Your task to perform on an android device: Open ESPN.com Image 0: 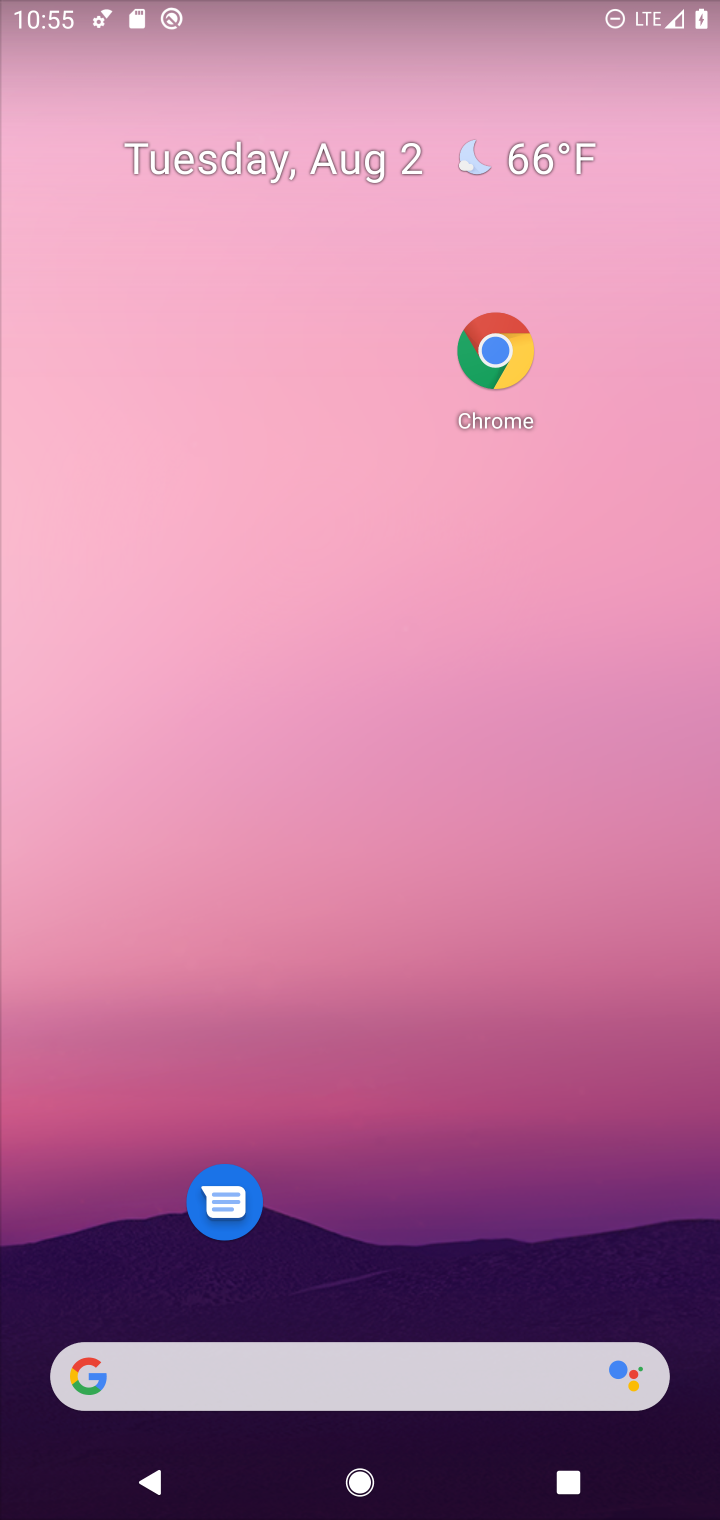
Step 0: click (495, 351)
Your task to perform on an android device: Open ESPN.com Image 1: 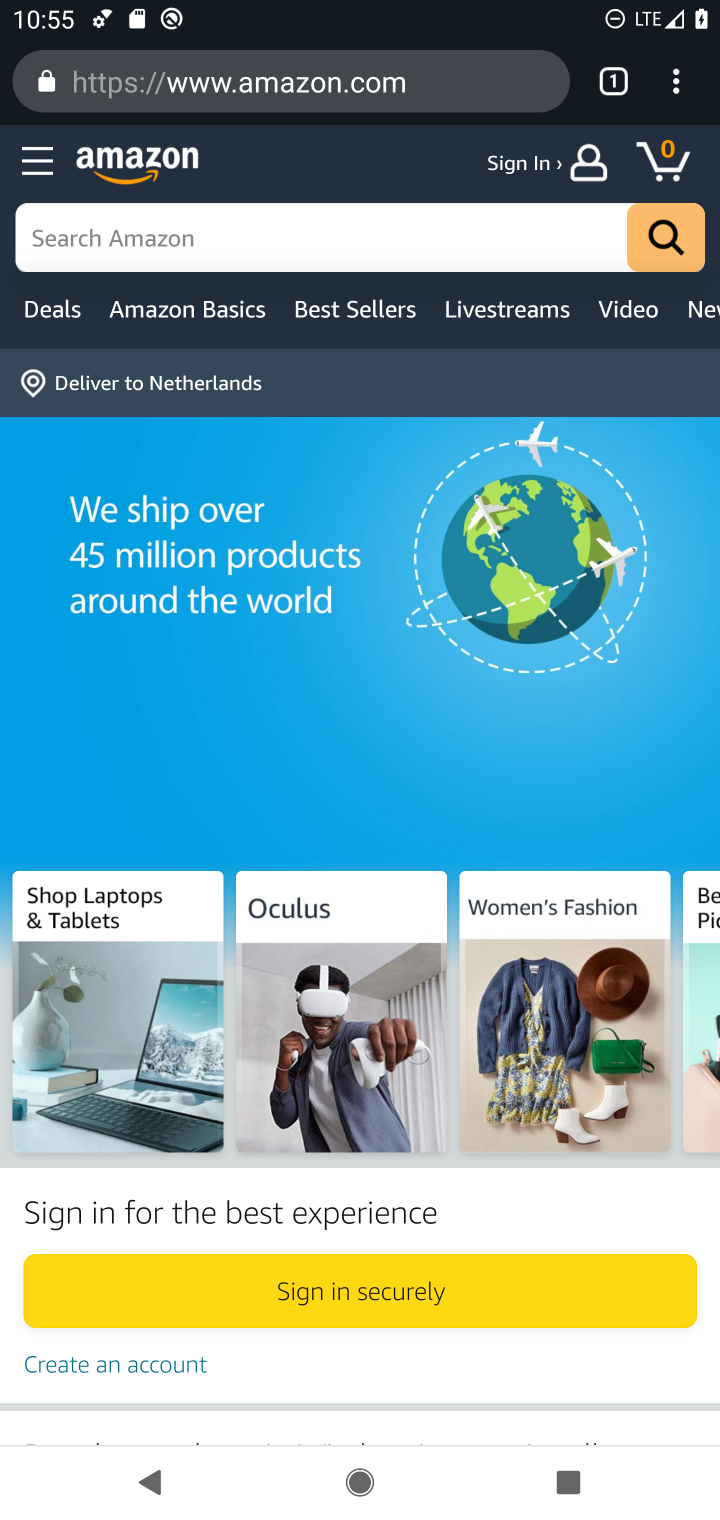
Step 1: click (433, 99)
Your task to perform on an android device: Open ESPN.com Image 2: 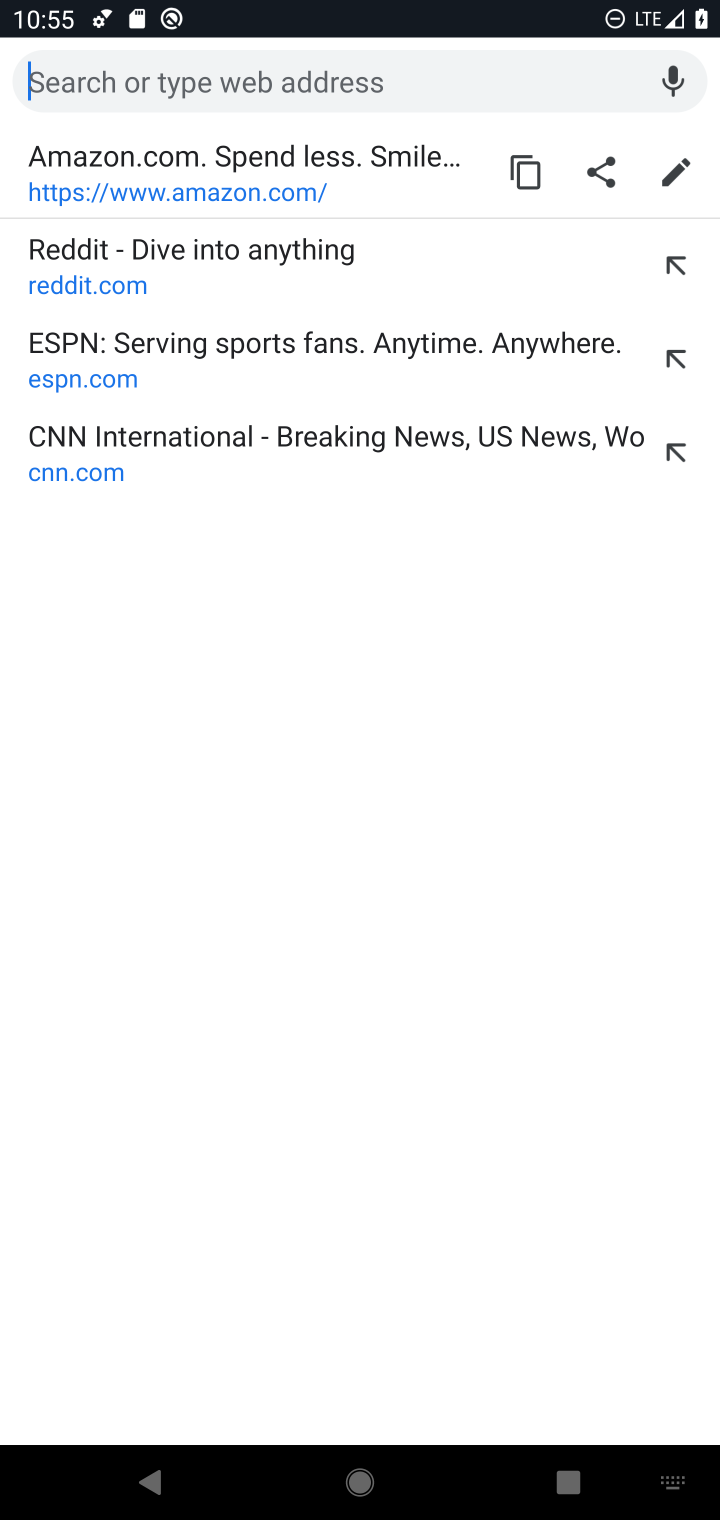
Step 2: click (67, 387)
Your task to perform on an android device: Open ESPN.com Image 3: 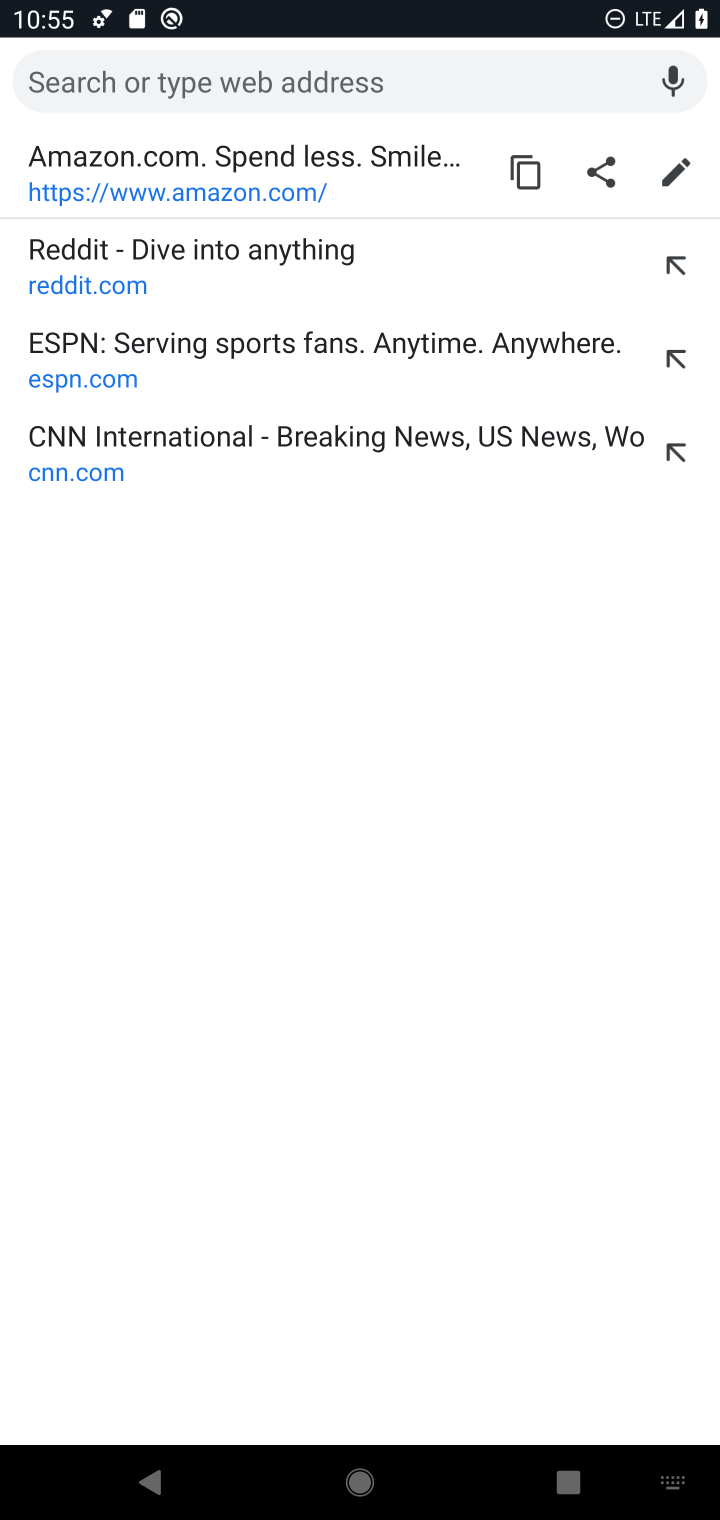
Step 3: click (94, 366)
Your task to perform on an android device: Open ESPN.com Image 4: 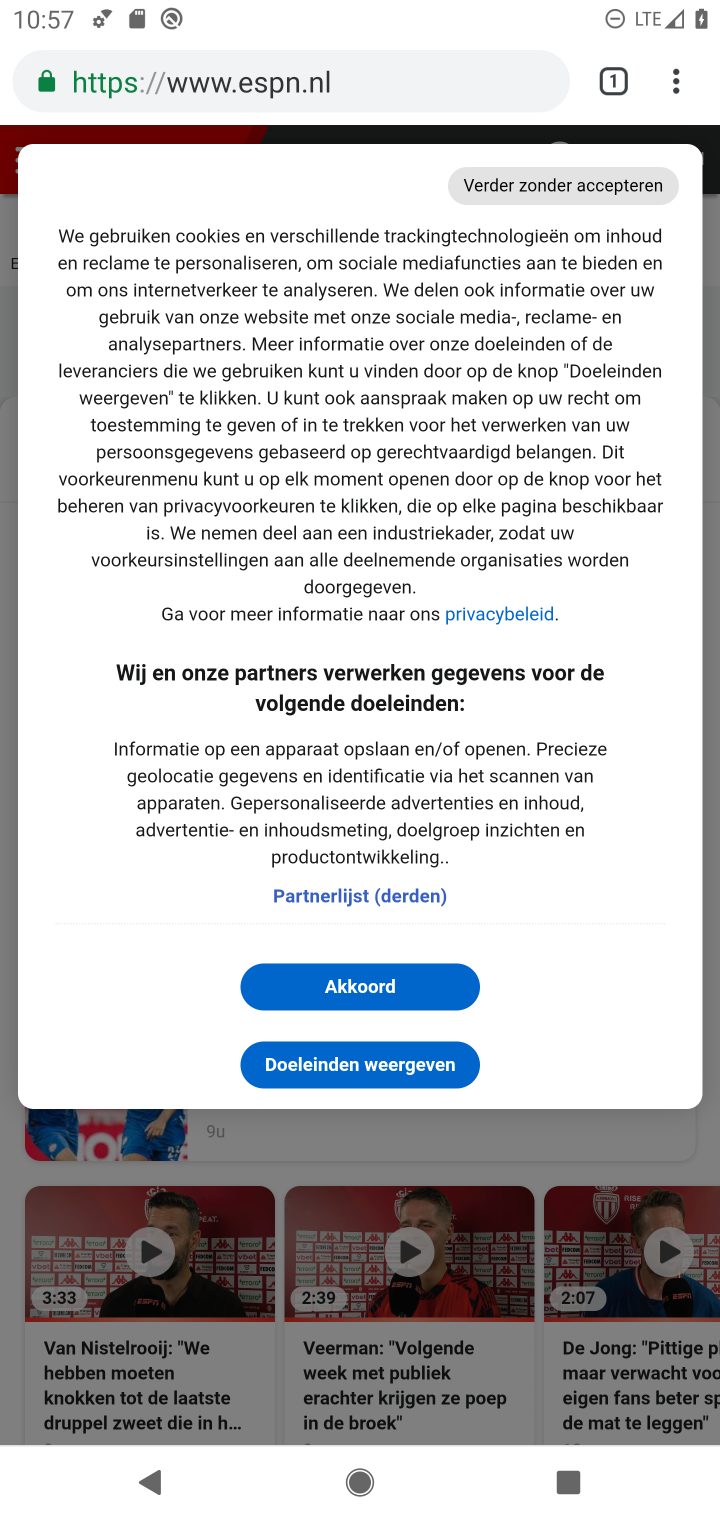
Step 4: task complete